Your task to perform on an android device: turn on the 24-hour format for clock Image 0: 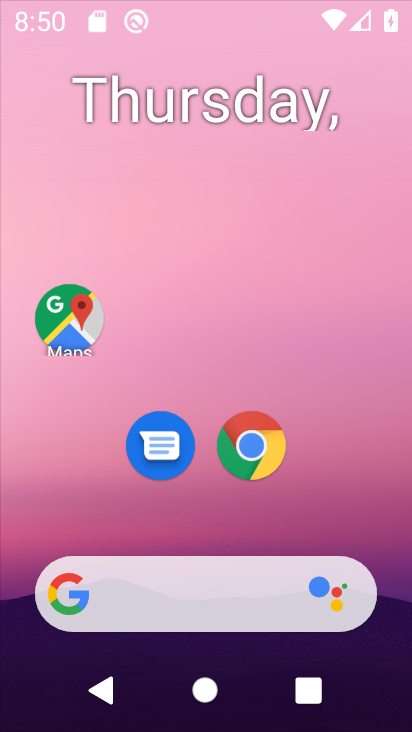
Step 0: drag from (329, 531) to (318, 28)
Your task to perform on an android device: turn on the 24-hour format for clock Image 1: 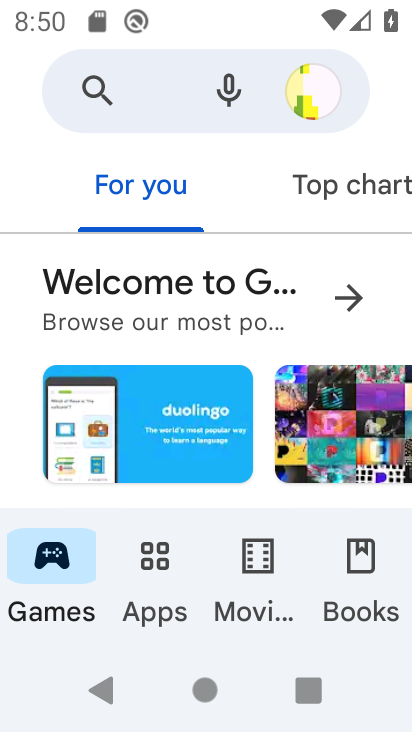
Step 1: press home button
Your task to perform on an android device: turn on the 24-hour format for clock Image 2: 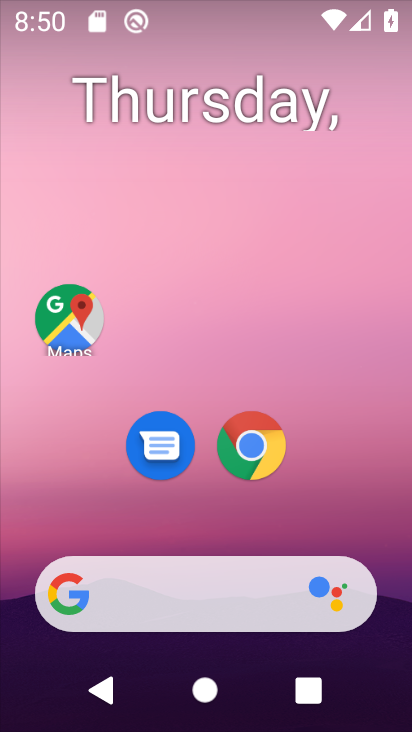
Step 2: drag from (294, 478) to (133, 70)
Your task to perform on an android device: turn on the 24-hour format for clock Image 3: 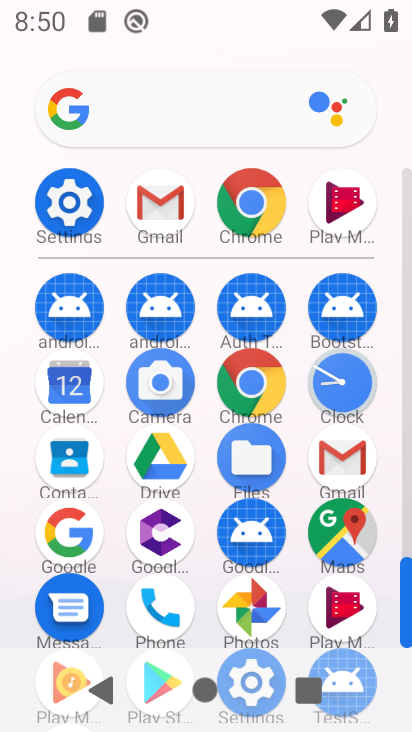
Step 3: click (348, 395)
Your task to perform on an android device: turn on the 24-hour format for clock Image 4: 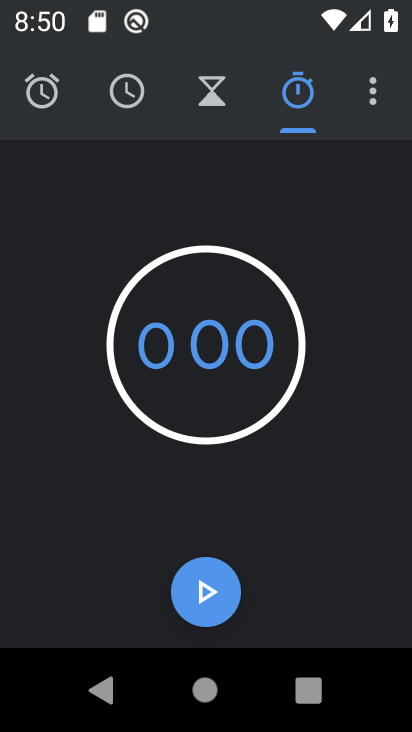
Step 4: click (371, 96)
Your task to perform on an android device: turn on the 24-hour format for clock Image 5: 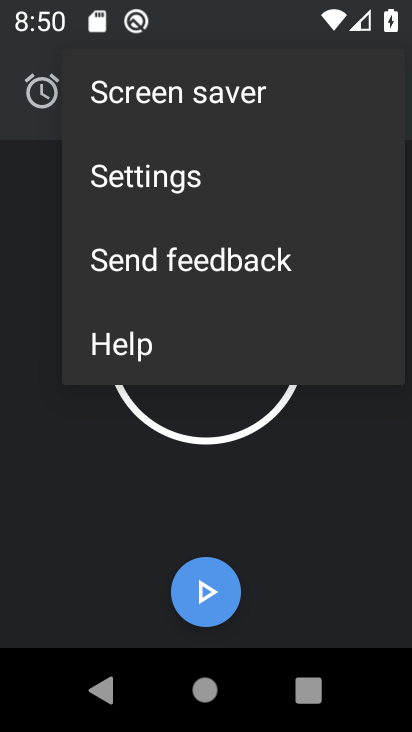
Step 5: click (165, 172)
Your task to perform on an android device: turn on the 24-hour format for clock Image 6: 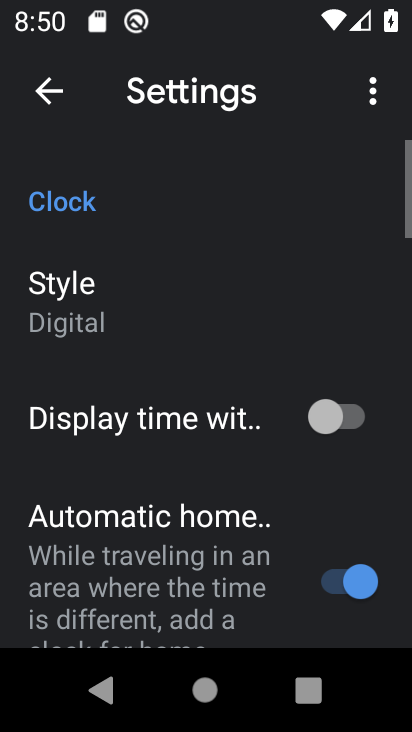
Step 6: drag from (172, 539) to (168, 205)
Your task to perform on an android device: turn on the 24-hour format for clock Image 7: 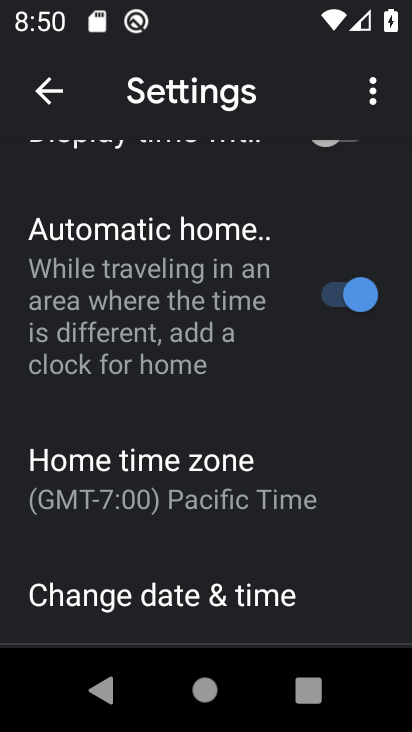
Step 7: click (142, 600)
Your task to perform on an android device: turn on the 24-hour format for clock Image 8: 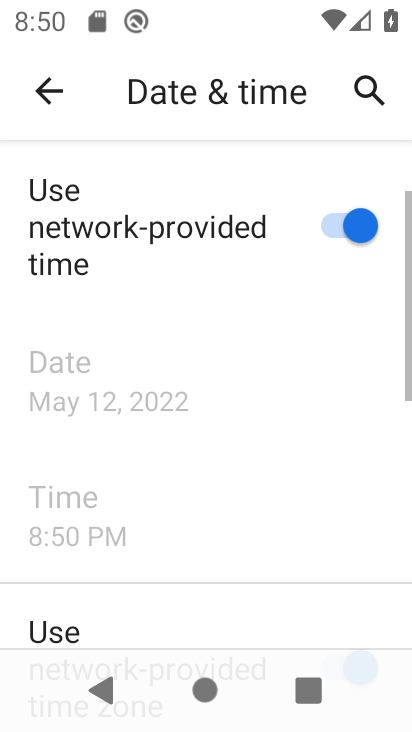
Step 8: drag from (148, 618) to (159, 274)
Your task to perform on an android device: turn on the 24-hour format for clock Image 9: 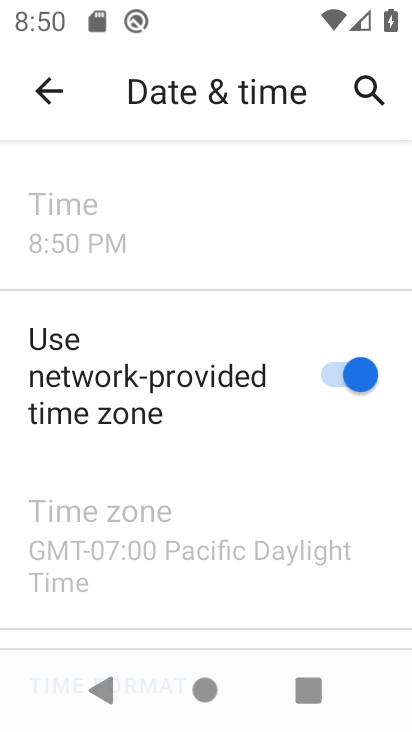
Step 9: drag from (126, 617) to (127, 277)
Your task to perform on an android device: turn on the 24-hour format for clock Image 10: 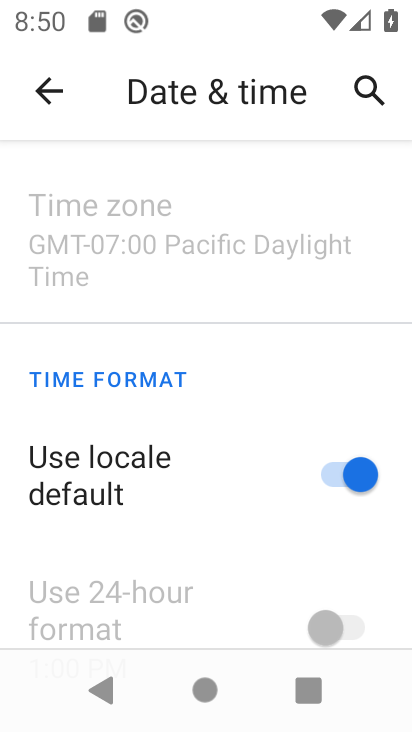
Step 10: drag from (122, 589) to (131, 380)
Your task to perform on an android device: turn on the 24-hour format for clock Image 11: 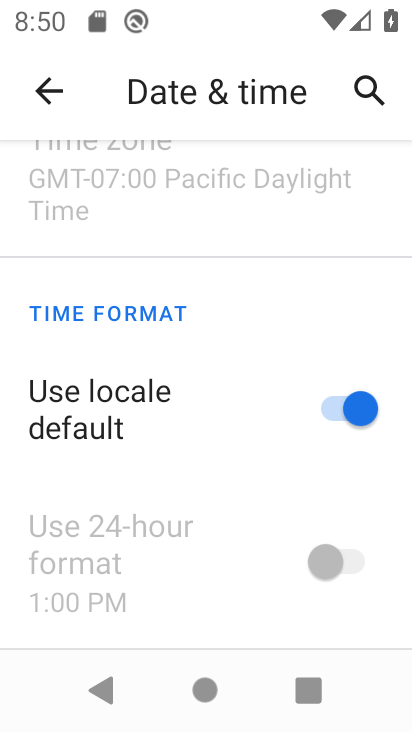
Step 11: click (346, 401)
Your task to perform on an android device: turn on the 24-hour format for clock Image 12: 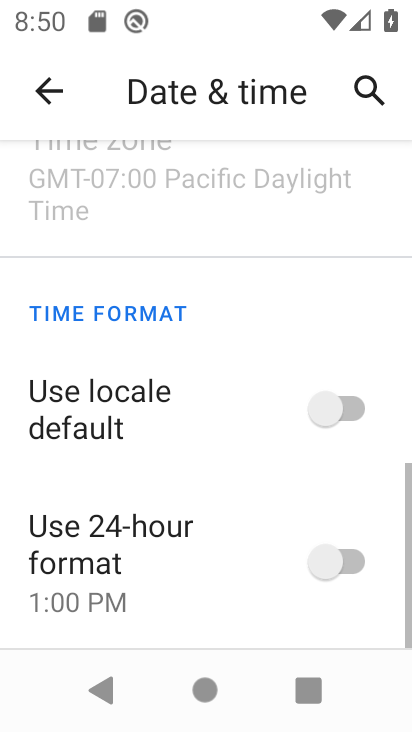
Step 12: click (327, 569)
Your task to perform on an android device: turn on the 24-hour format for clock Image 13: 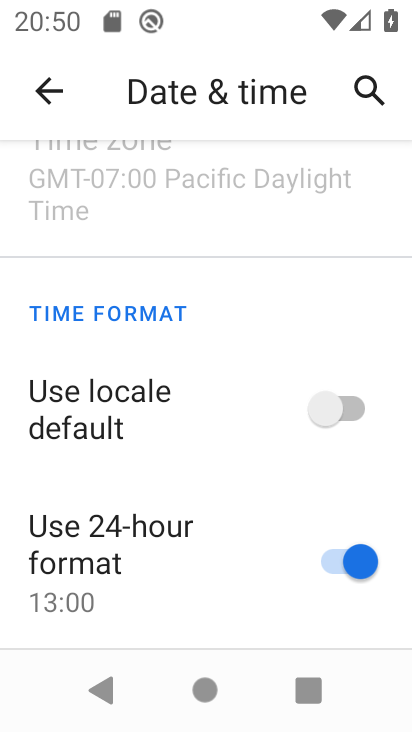
Step 13: task complete